Your task to perform on an android device: toggle pop-ups in chrome Image 0: 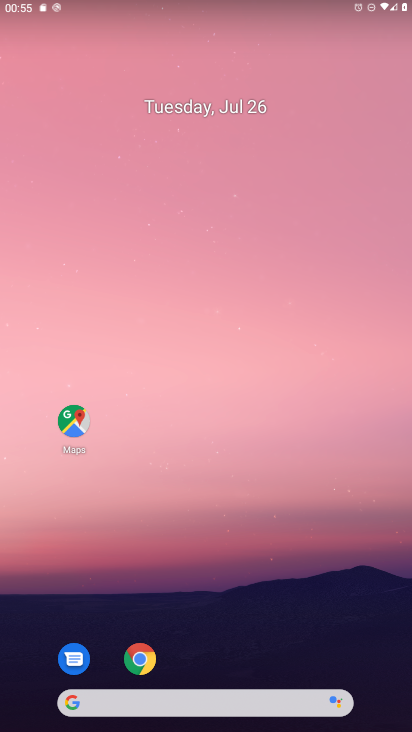
Step 0: drag from (262, 602) to (322, 116)
Your task to perform on an android device: toggle pop-ups in chrome Image 1: 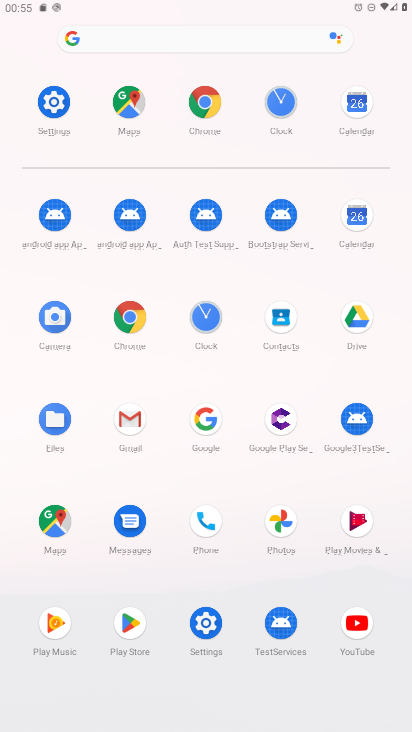
Step 1: click (130, 320)
Your task to perform on an android device: toggle pop-ups in chrome Image 2: 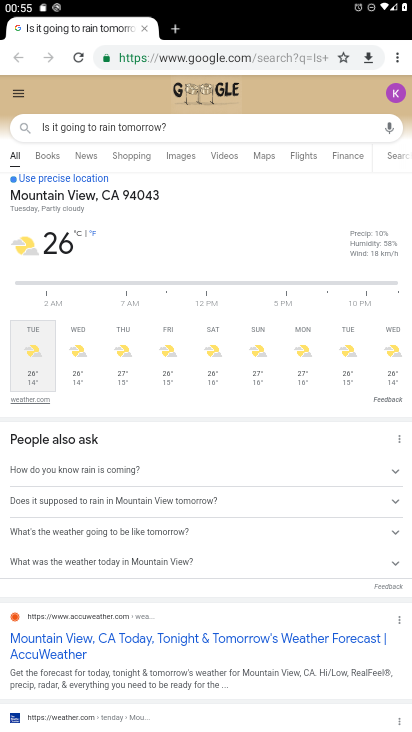
Step 2: drag from (394, 54) to (276, 395)
Your task to perform on an android device: toggle pop-ups in chrome Image 3: 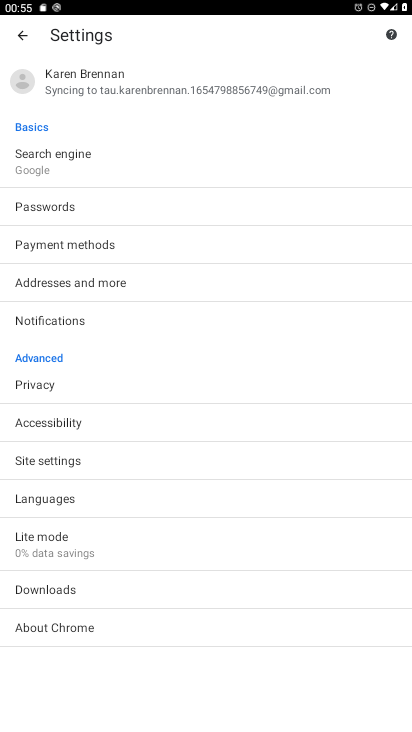
Step 3: click (76, 455)
Your task to perform on an android device: toggle pop-ups in chrome Image 4: 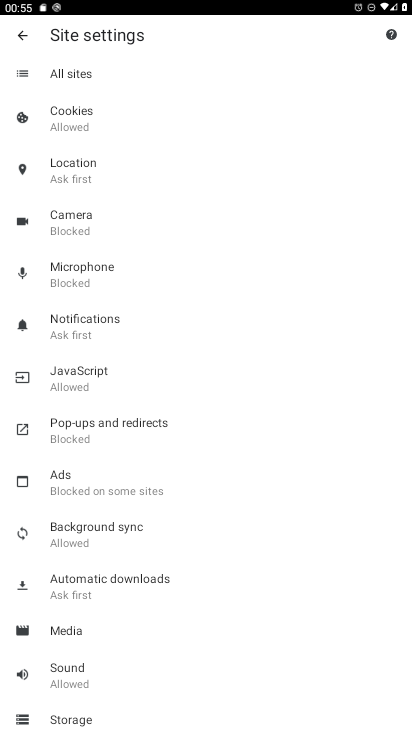
Step 4: click (94, 422)
Your task to perform on an android device: toggle pop-ups in chrome Image 5: 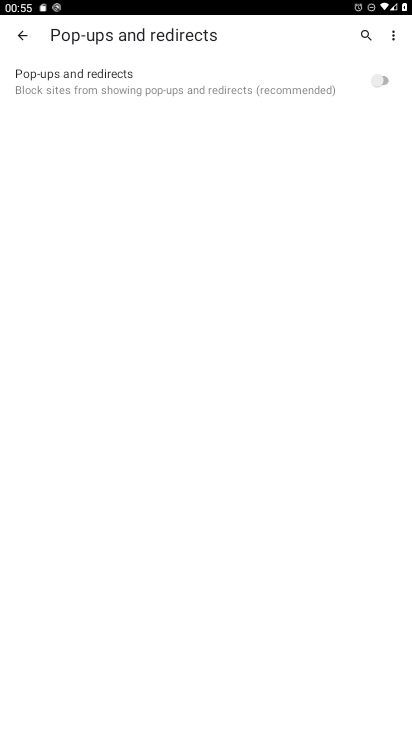
Step 5: click (277, 83)
Your task to perform on an android device: toggle pop-ups in chrome Image 6: 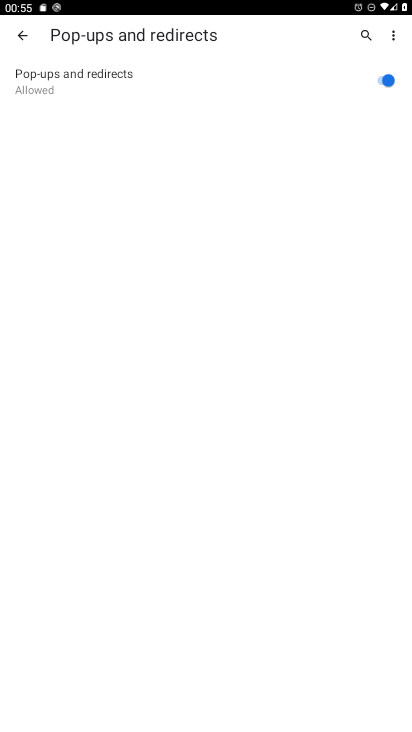
Step 6: task complete